Your task to perform on an android device: Open the stopwatch Image 0: 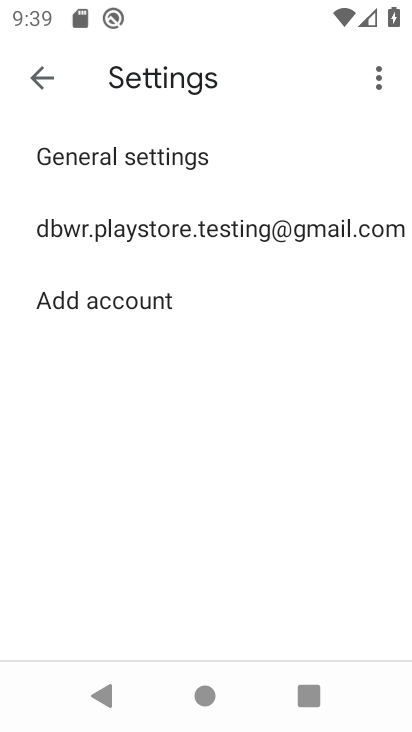
Step 0: press home button
Your task to perform on an android device: Open the stopwatch Image 1: 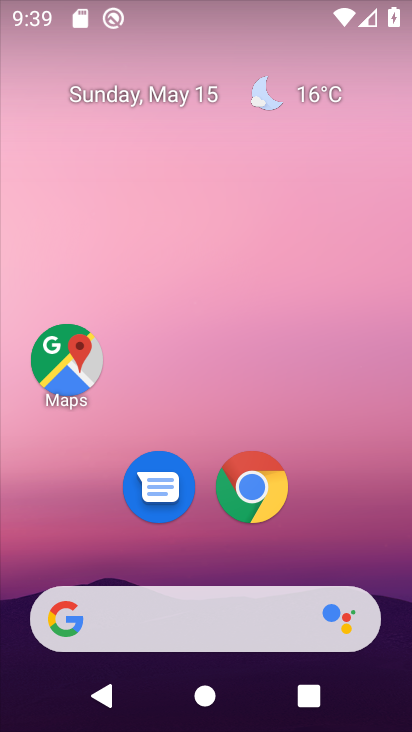
Step 1: drag from (355, 502) to (348, 133)
Your task to perform on an android device: Open the stopwatch Image 2: 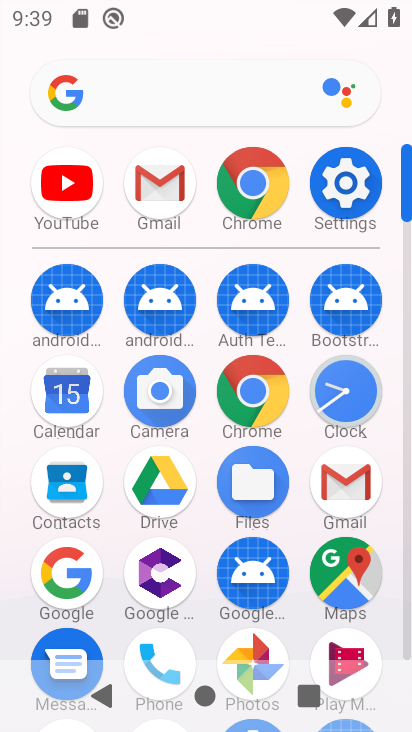
Step 2: click (330, 407)
Your task to perform on an android device: Open the stopwatch Image 3: 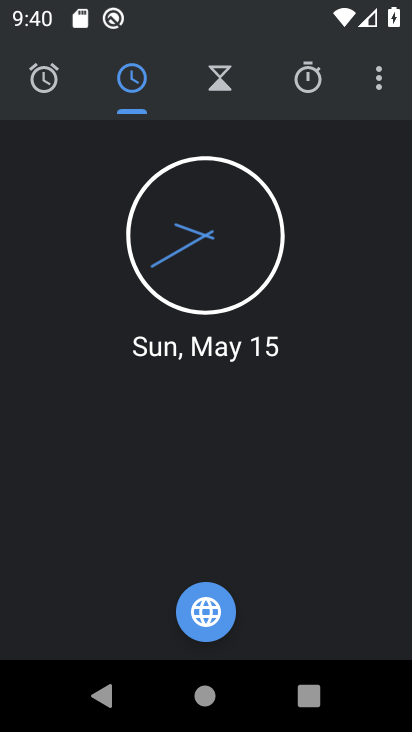
Step 3: click (321, 90)
Your task to perform on an android device: Open the stopwatch Image 4: 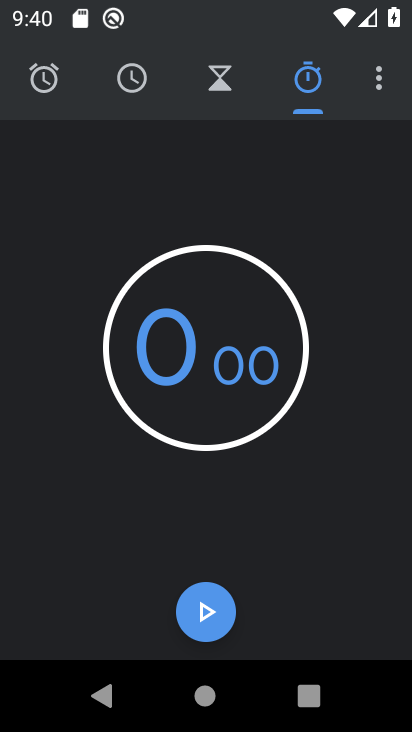
Step 4: click (206, 617)
Your task to perform on an android device: Open the stopwatch Image 5: 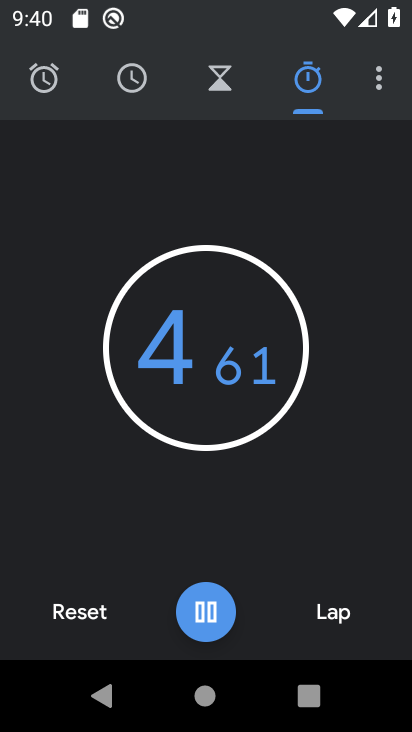
Step 5: click (208, 615)
Your task to perform on an android device: Open the stopwatch Image 6: 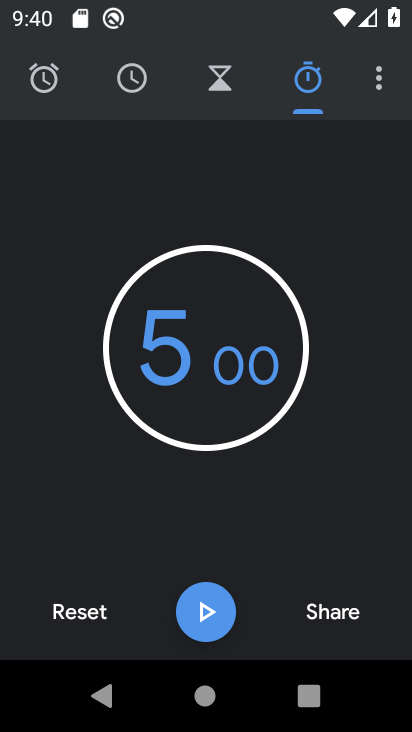
Step 6: task complete